Your task to perform on an android device: Open maps Image 0: 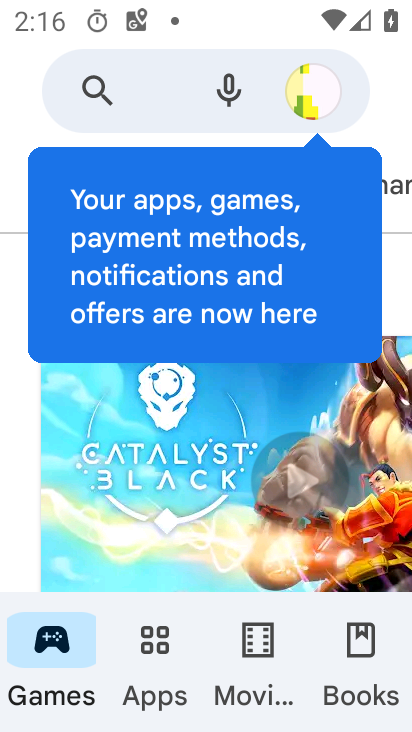
Step 0: press home button
Your task to perform on an android device: Open maps Image 1: 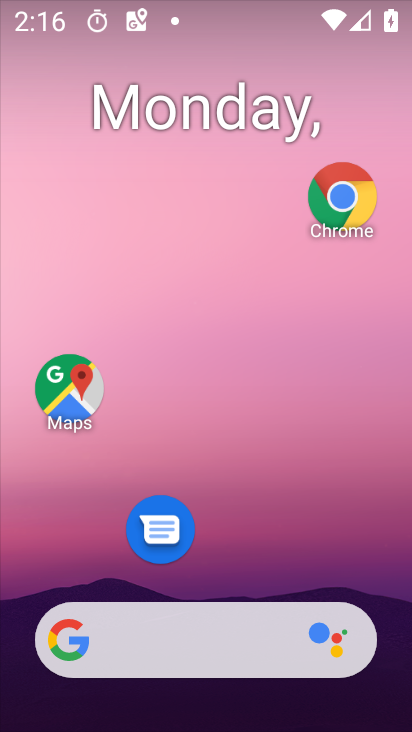
Step 1: click (75, 400)
Your task to perform on an android device: Open maps Image 2: 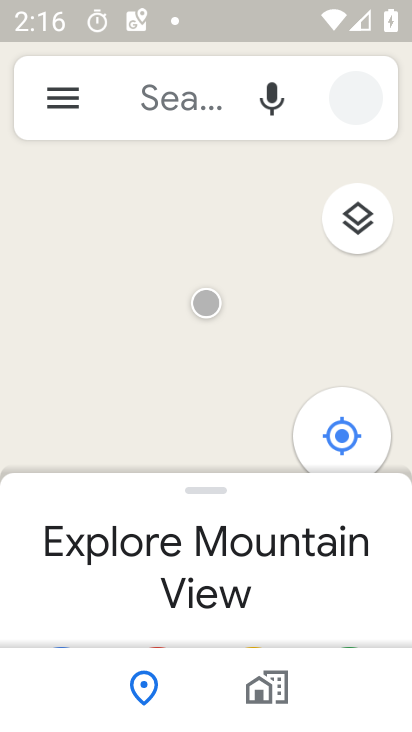
Step 2: task complete